Your task to perform on an android device: read, delete, or share a saved page in the chrome app Image 0: 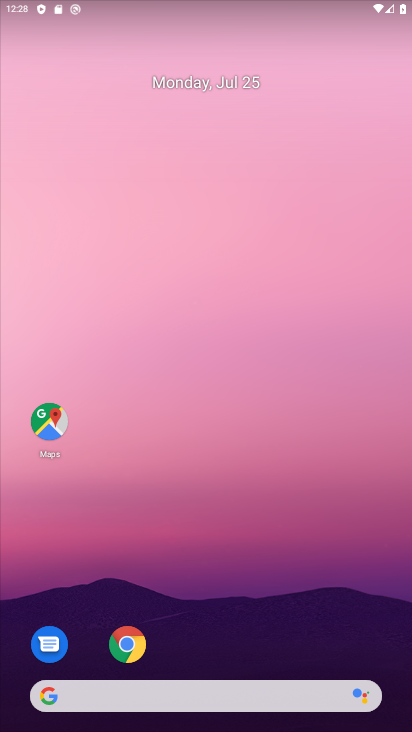
Step 0: click (227, 707)
Your task to perform on an android device: read, delete, or share a saved page in the chrome app Image 1: 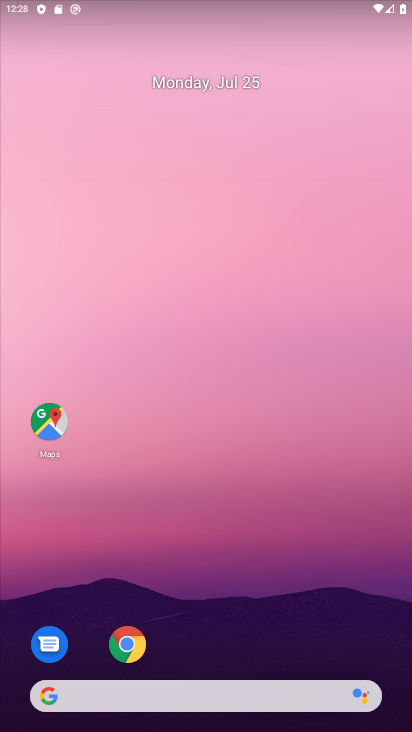
Step 1: drag from (220, 286) to (218, 23)
Your task to perform on an android device: read, delete, or share a saved page in the chrome app Image 2: 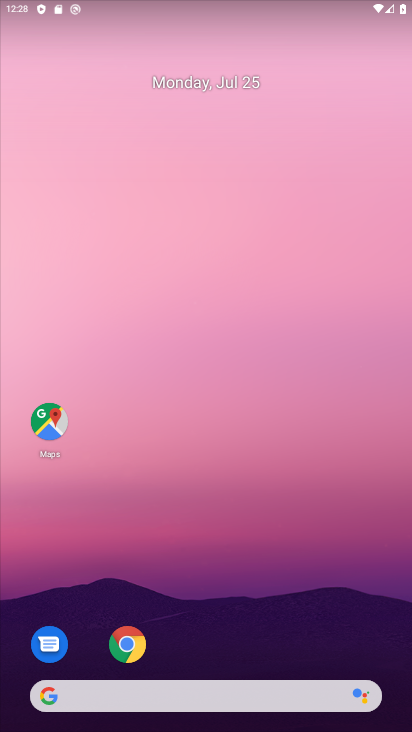
Step 2: drag from (217, 722) to (217, 668)
Your task to perform on an android device: read, delete, or share a saved page in the chrome app Image 3: 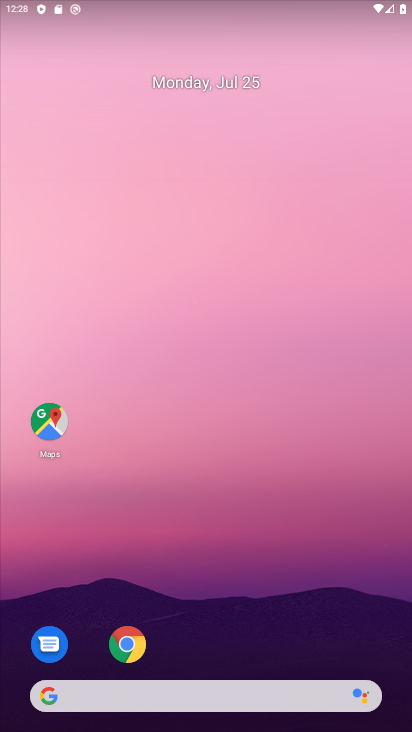
Step 3: drag from (217, 129) to (221, 7)
Your task to perform on an android device: read, delete, or share a saved page in the chrome app Image 4: 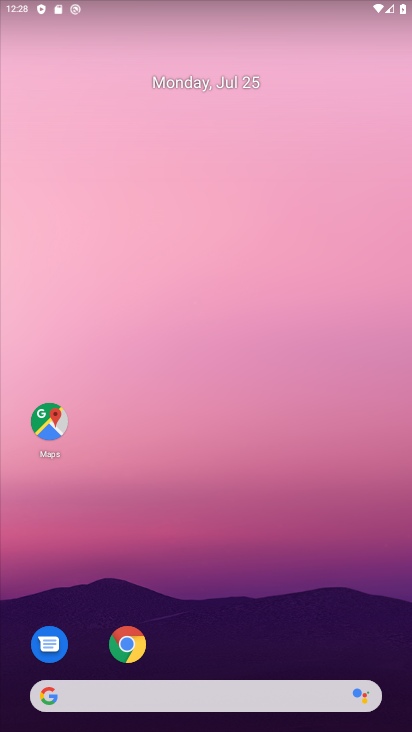
Step 4: click (124, 643)
Your task to perform on an android device: read, delete, or share a saved page in the chrome app Image 5: 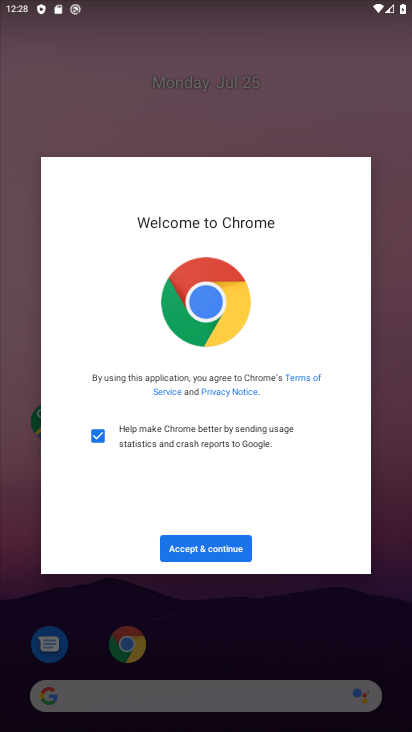
Step 5: click (192, 548)
Your task to perform on an android device: read, delete, or share a saved page in the chrome app Image 6: 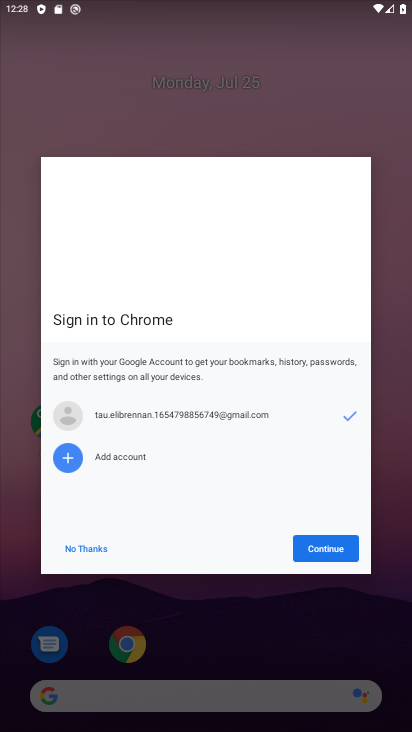
Step 6: click (348, 544)
Your task to perform on an android device: read, delete, or share a saved page in the chrome app Image 7: 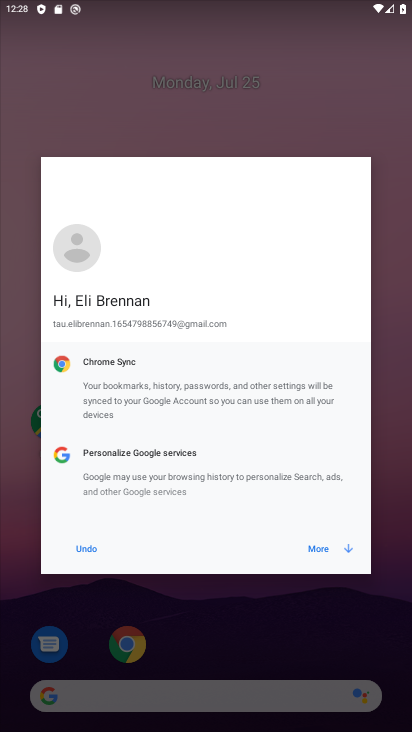
Step 7: click (321, 545)
Your task to perform on an android device: read, delete, or share a saved page in the chrome app Image 8: 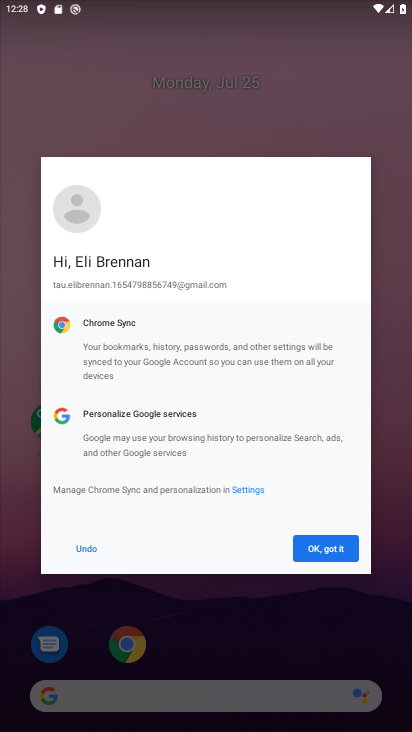
Step 8: click (321, 545)
Your task to perform on an android device: read, delete, or share a saved page in the chrome app Image 9: 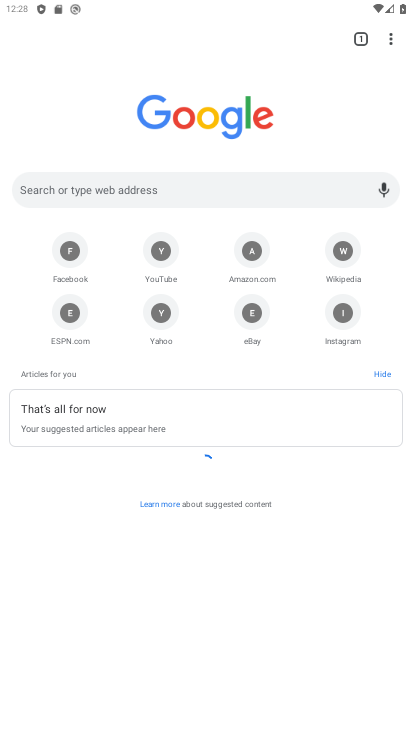
Step 9: click (390, 41)
Your task to perform on an android device: read, delete, or share a saved page in the chrome app Image 10: 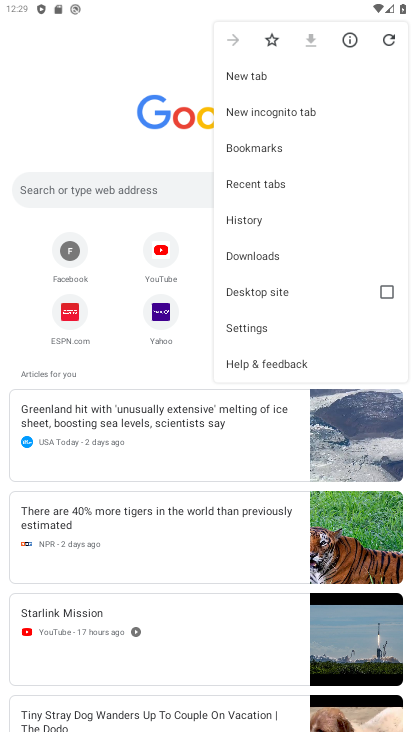
Step 10: click (256, 254)
Your task to perform on an android device: read, delete, or share a saved page in the chrome app Image 11: 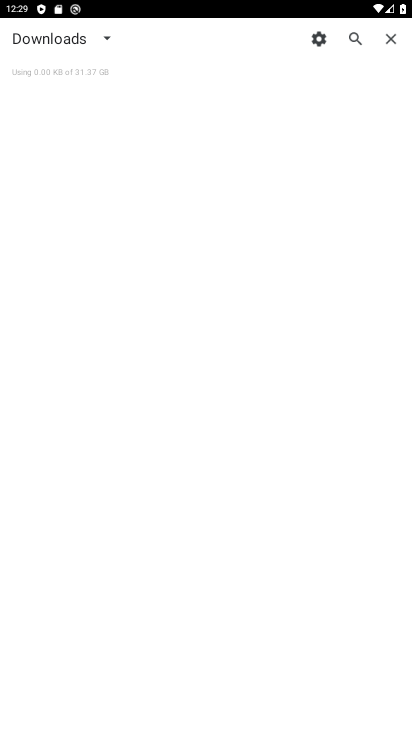
Step 11: click (103, 34)
Your task to perform on an android device: read, delete, or share a saved page in the chrome app Image 12: 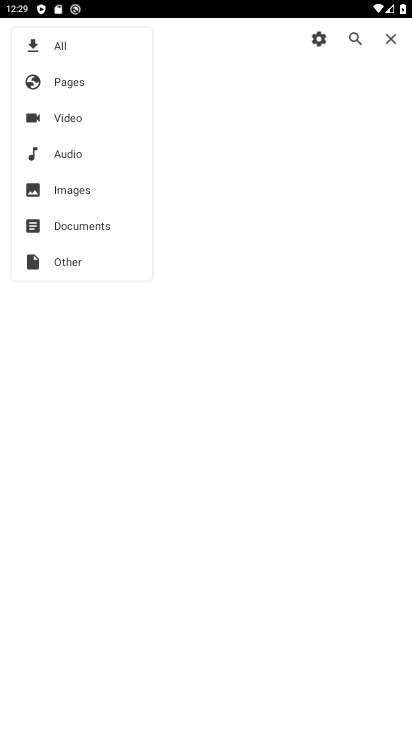
Step 12: click (69, 81)
Your task to perform on an android device: read, delete, or share a saved page in the chrome app Image 13: 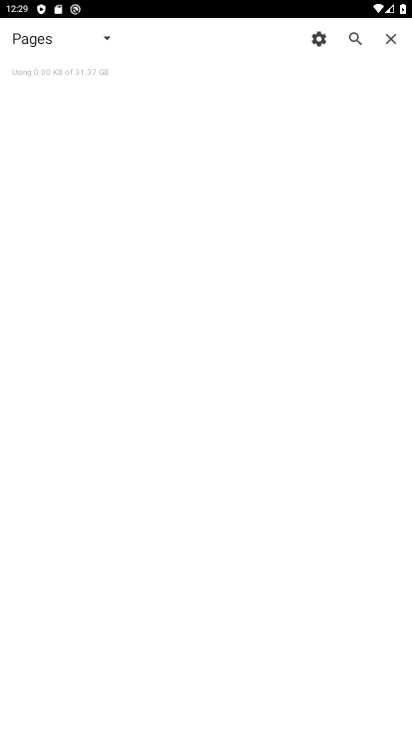
Step 13: task complete